Your task to perform on an android device: open app "Flipkart Online Shopping App" (install if not already installed) Image 0: 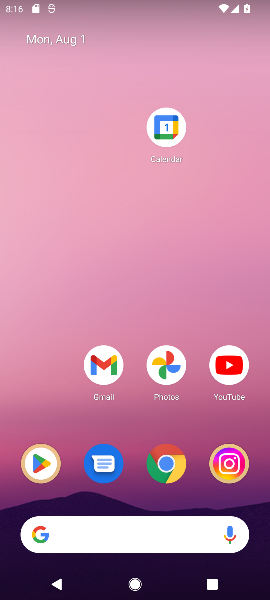
Step 0: click (42, 461)
Your task to perform on an android device: open app "Flipkart Online Shopping App" (install if not already installed) Image 1: 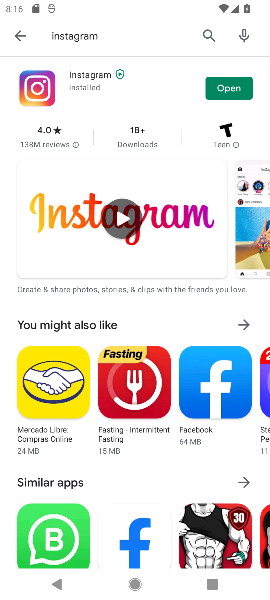
Step 1: click (207, 34)
Your task to perform on an android device: open app "Flipkart Online Shopping App" (install if not already installed) Image 2: 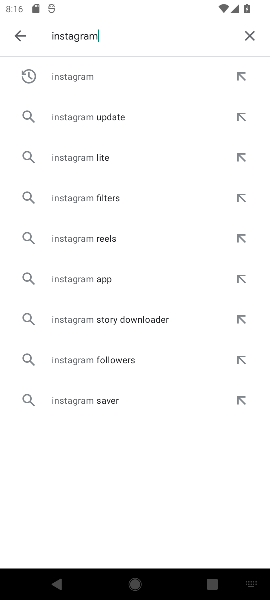
Step 2: click (266, 37)
Your task to perform on an android device: open app "Flipkart Online Shopping App" (install if not already installed) Image 3: 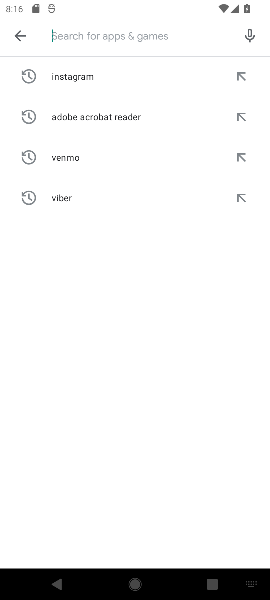
Step 3: type "flipkart"
Your task to perform on an android device: open app "Flipkart Online Shopping App" (install if not already installed) Image 4: 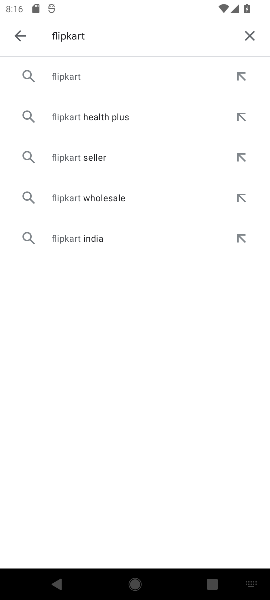
Step 4: click (168, 85)
Your task to perform on an android device: open app "Flipkart Online Shopping App" (install if not already installed) Image 5: 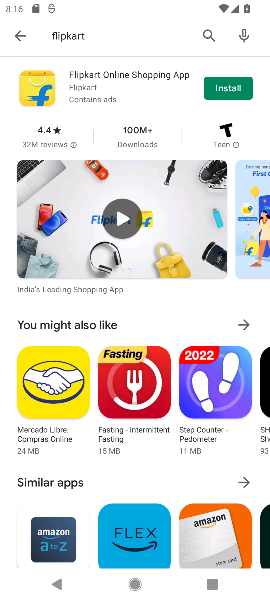
Step 5: click (220, 81)
Your task to perform on an android device: open app "Flipkart Online Shopping App" (install if not already installed) Image 6: 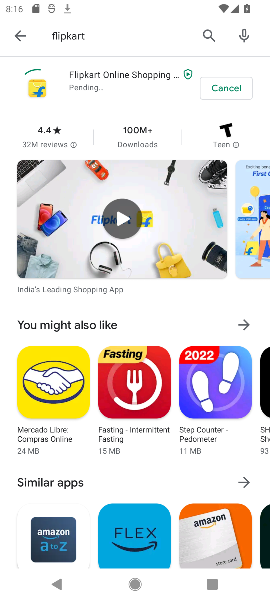
Step 6: task complete